Your task to perform on an android device: Open display settings Image 0: 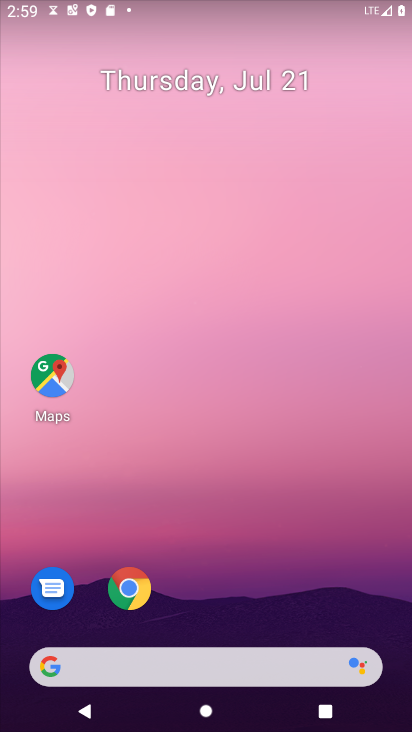
Step 0: drag from (194, 595) to (329, 234)
Your task to perform on an android device: Open display settings Image 1: 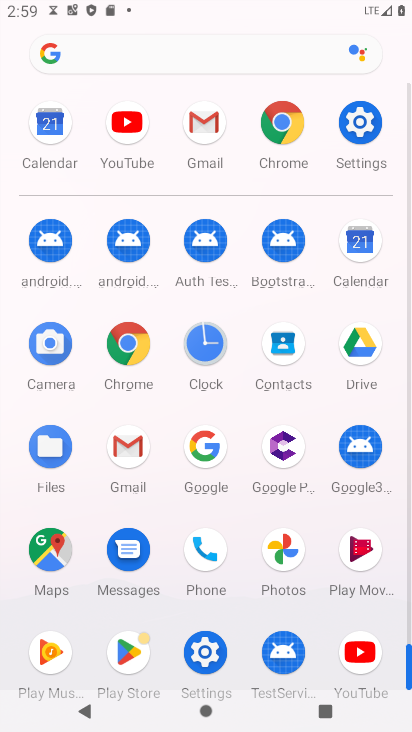
Step 1: drag from (252, 579) to (259, 408)
Your task to perform on an android device: Open display settings Image 2: 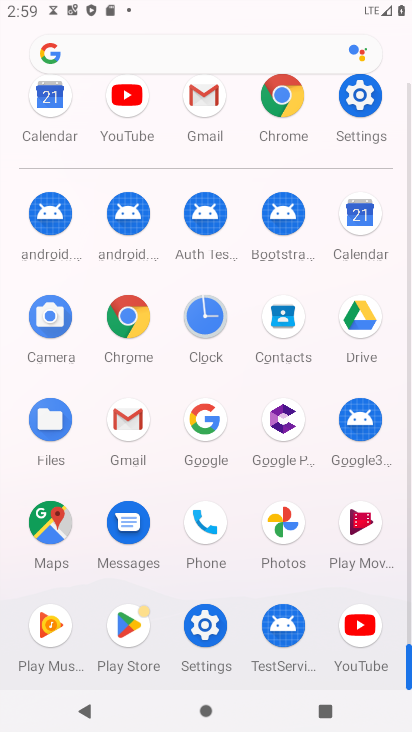
Step 2: drag from (236, 517) to (254, 421)
Your task to perform on an android device: Open display settings Image 3: 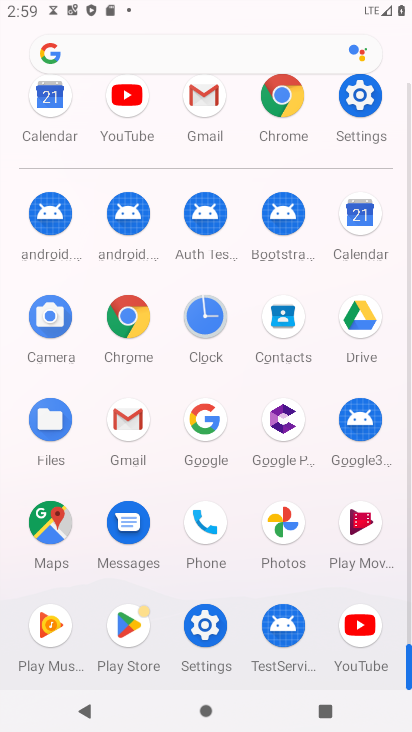
Step 3: drag from (250, 566) to (270, 452)
Your task to perform on an android device: Open display settings Image 4: 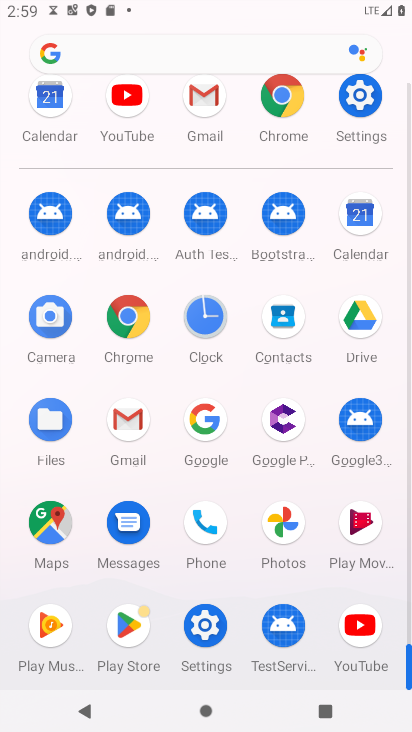
Step 4: click (207, 613)
Your task to perform on an android device: Open display settings Image 5: 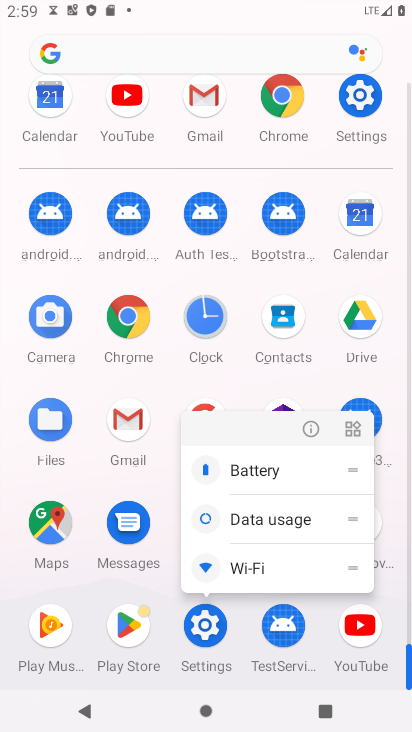
Step 5: click (300, 423)
Your task to perform on an android device: Open display settings Image 6: 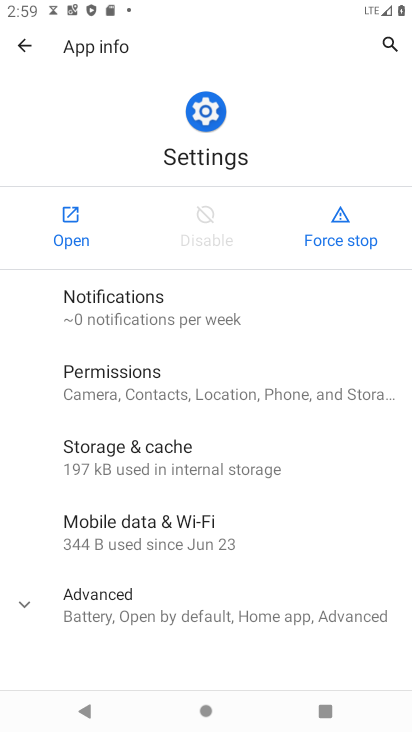
Step 6: click (82, 207)
Your task to perform on an android device: Open display settings Image 7: 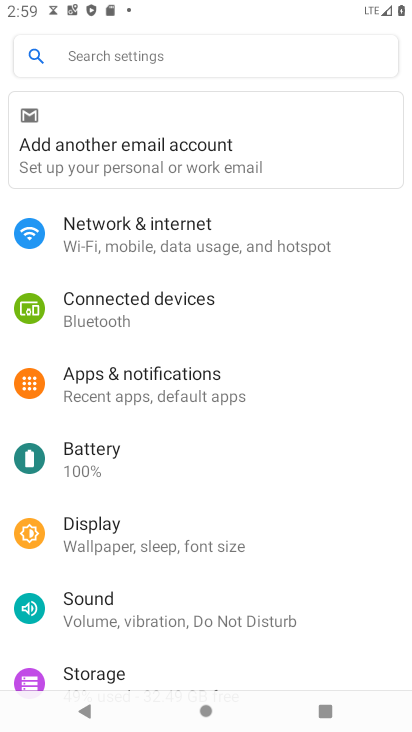
Step 7: drag from (226, 603) to (286, 168)
Your task to perform on an android device: Open display settings Image 8: 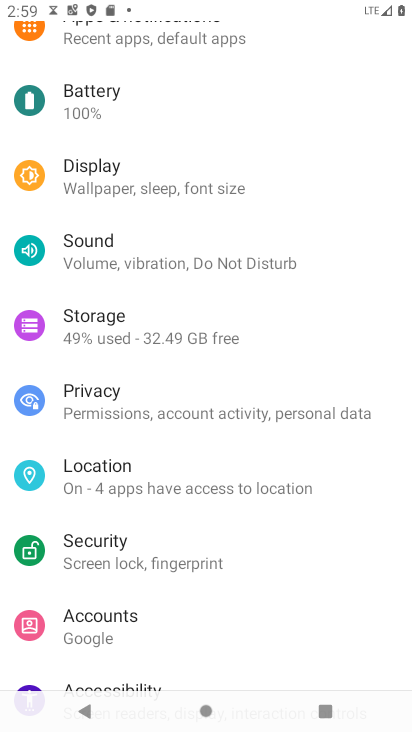
Step 8: drag from (189, 626) to (257, 331)
Your task to perform on an android device: Open display settings Image 9: 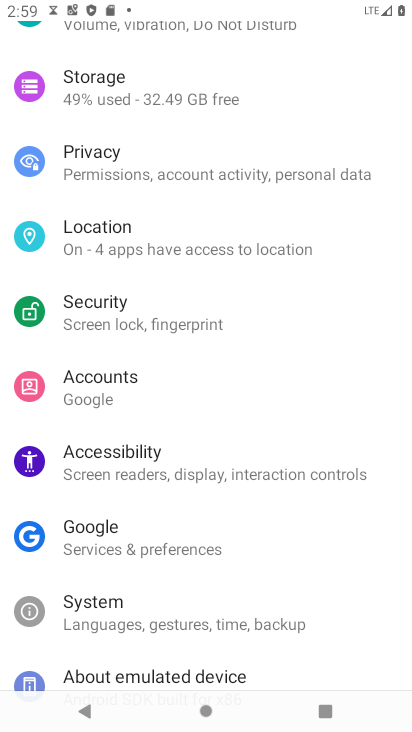
Step 9: drag from (270, 238) to (275, 731)
Your task to perform on an android device: Open display settings Image 10: 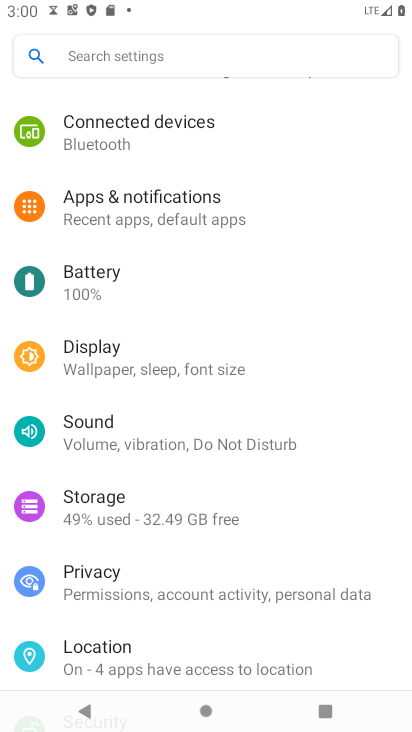
Step 10: click (119, 358)
Your task to perform on an android device: Open display settings Image 11: 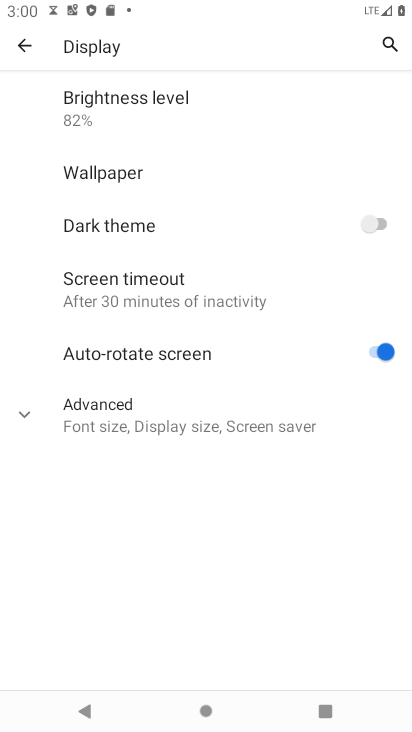
Step 11: drag from (188, 191) to (273, 718)
Your task to perform on an android device: Open display settings Image 12: 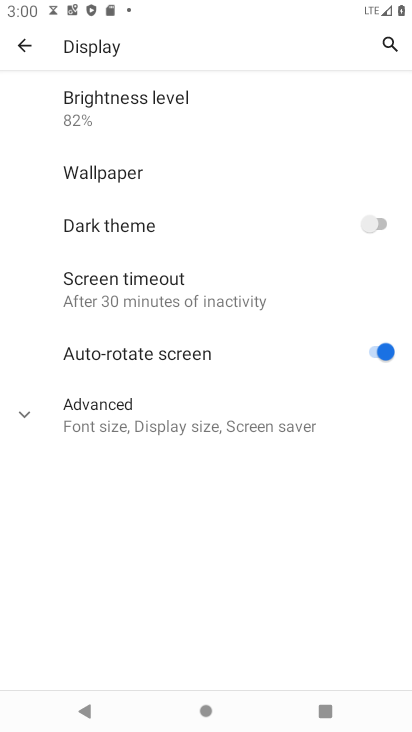
Step 12: drag from (192, 571) to (222, 199)
Your task to perform on an android device: Open display settings Image 13: 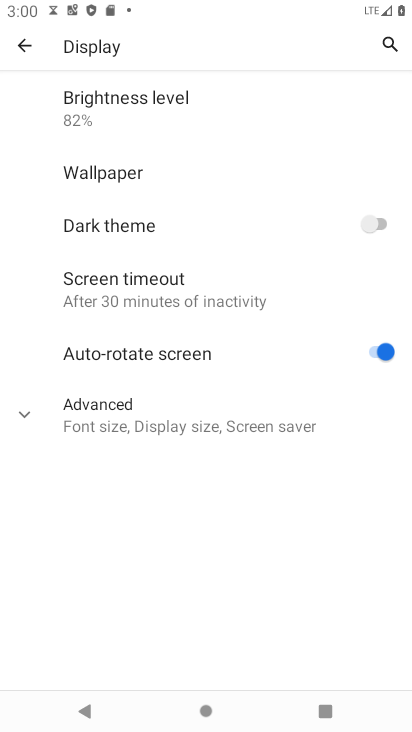
Step 13: drag from (225, 473) to (295, 216)
Your task to perform on an android device: Open display settings Image 14: 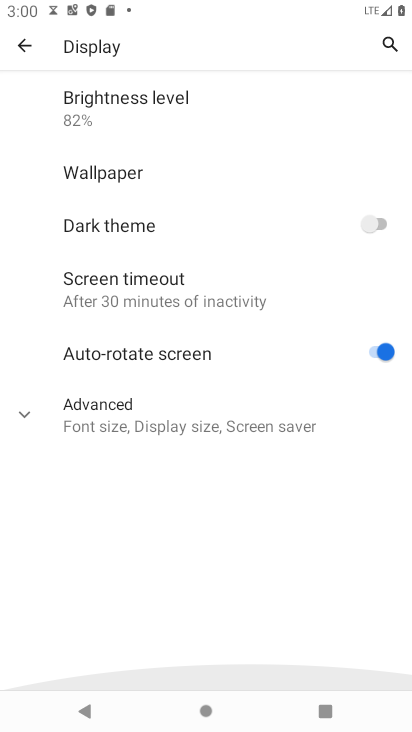
Step 14: drag from (153, 74) to (272, 656)
Your task to perform on an android device: Open display settings Image 15: 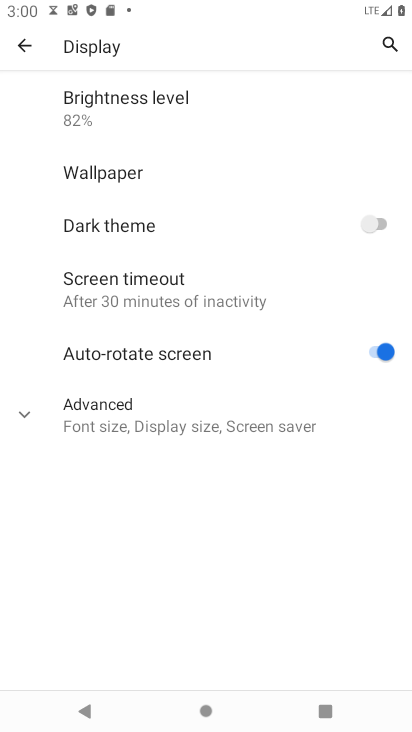
Step 15: drag from (201, 284) to (228, 728)
Your task to perform on an android device: Open display settings Image 16: 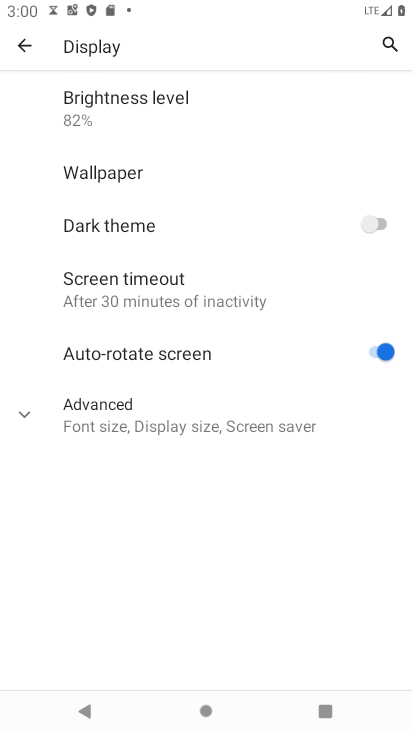
Step 16: drag from (214, 291) to (244, 689)
Your task to perform on an android device: Open display settings Image 17: 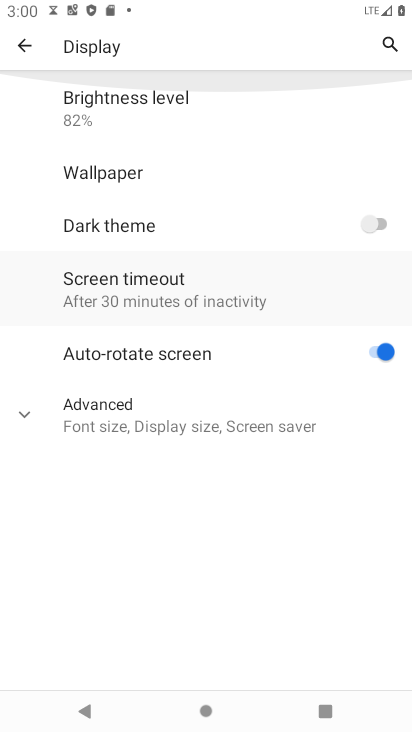
Step 17: drag from (198, 499) to (253, 261)
Your task to perform on an android device: Open display settings Image 18: 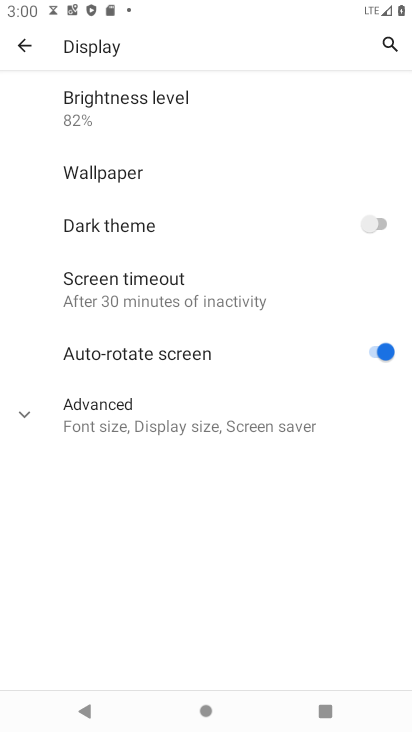
Step 18: click (145, 408)
Your task to perform on an android device: Open display settings Image 19: 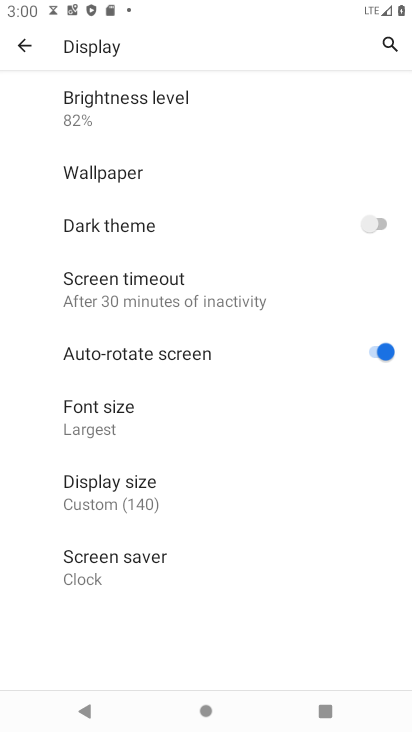
Step 19: task complete